Your task to perform on an android device: Open display settings Image 0: 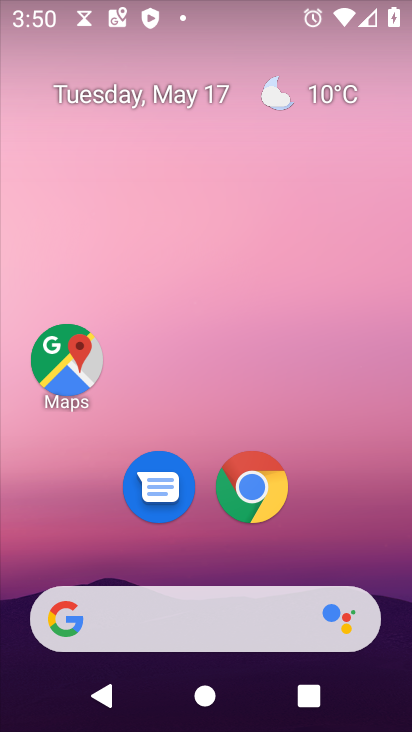
Step 0: drag from (397, 615) to (320, 11)
Your task to perform on an android device: Open display settings Image 1: 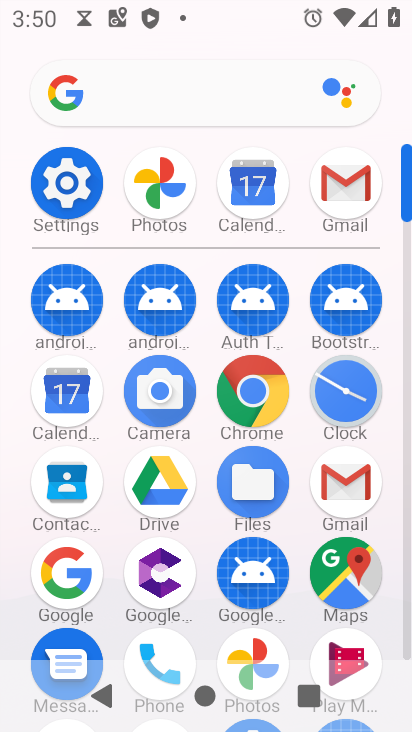
Step 1: click (407, 627)
Your task to perform on an android device: Open display settings Image 2: 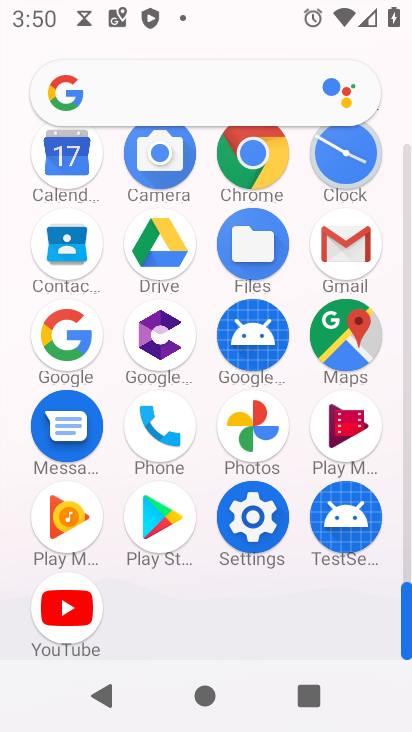
Step 2: click (250, 516)
Your task to perform on an android device: Open display settings Image 3: 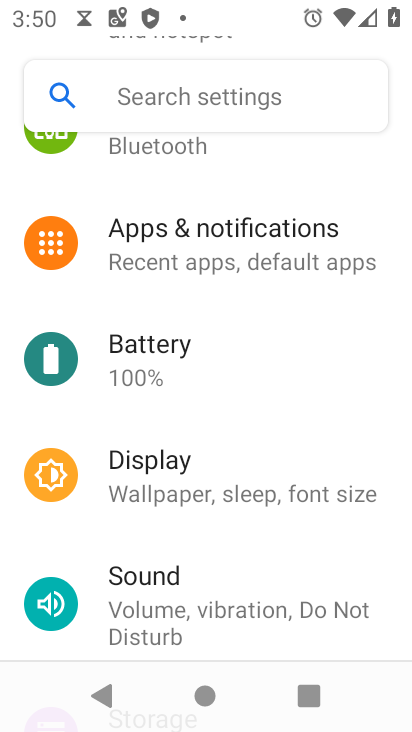
Step 3: click (161, 469)
Your task to perform on an android device: Open display settings Image 4: 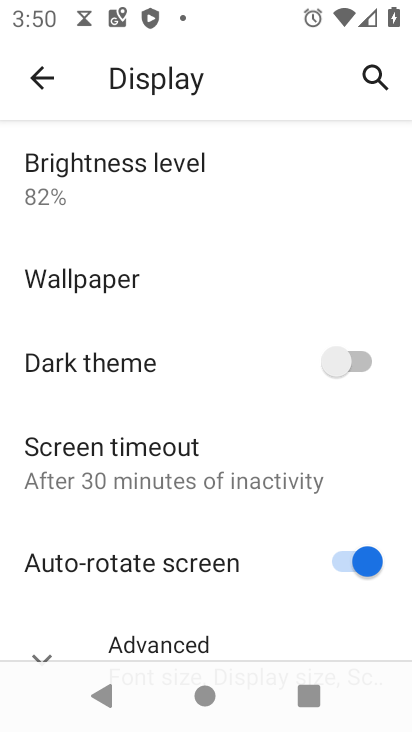
Step 4: drag from (163, 610) to (248, 209)
Your task to perform on an android device: Open display settings Image 5: 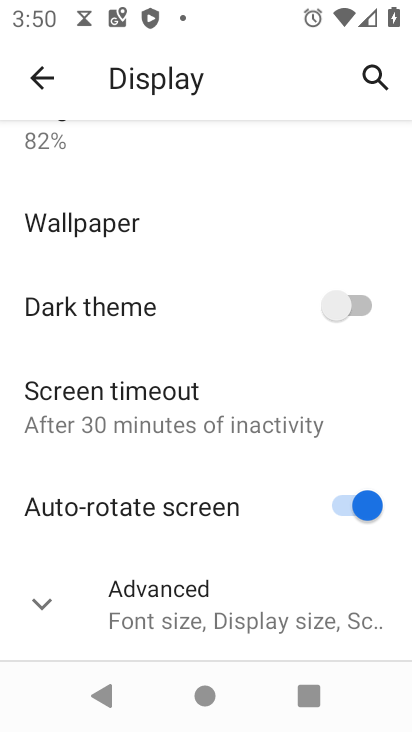
Step 5: click (46, 602)
Your task to perform on an android device: Open display settings Image 6: 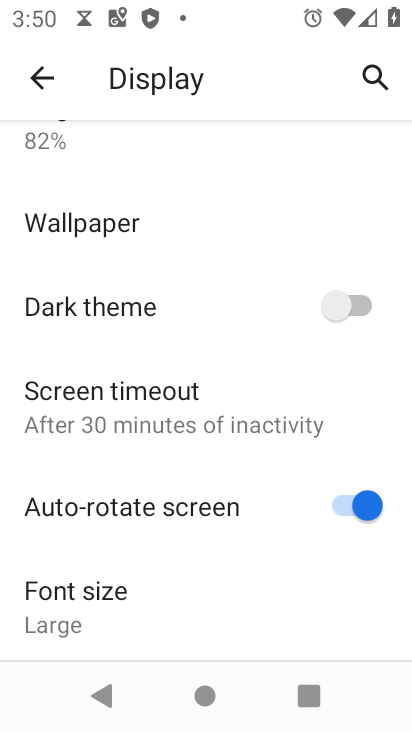
Step 6: task complete